Your task to perform on an android device: Open ESPN.com Image 0: 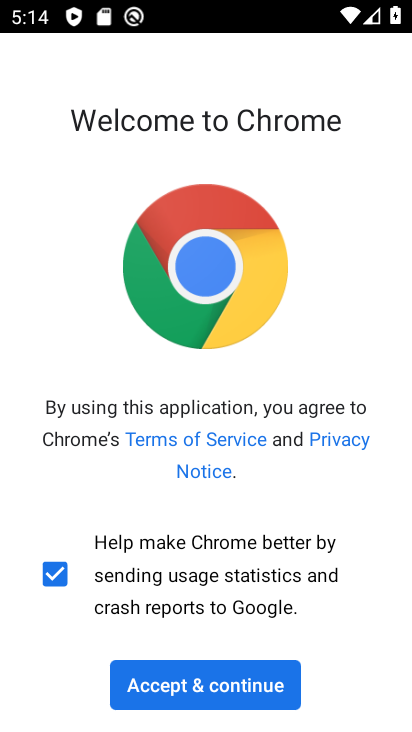
Step 0: click (234, 688)
Your task to perform on an android device: Open ESPN.com Image 1: 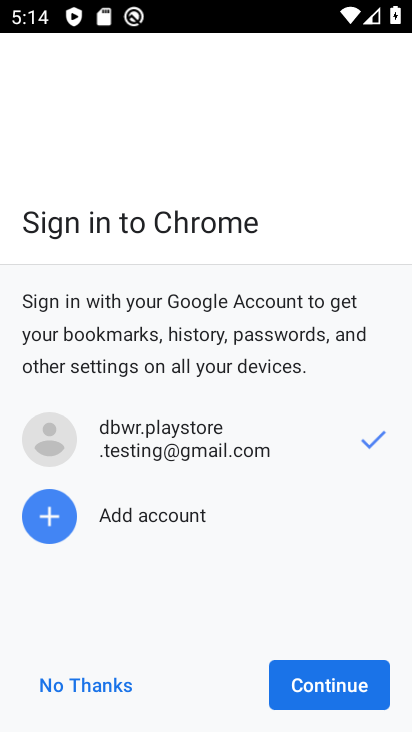
Step 1: click (307, 697)
Your task to perform on an android device: Open ESPN.com Image 2: 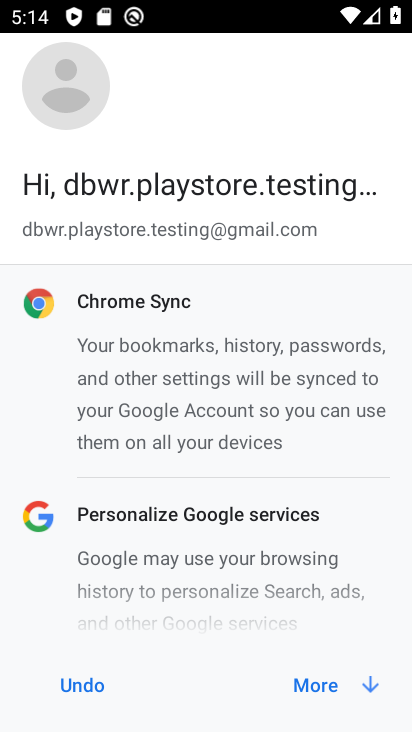
Step 2: click (301, 682)
Your task to perform on an android device: Open ESPN.com Image 3: 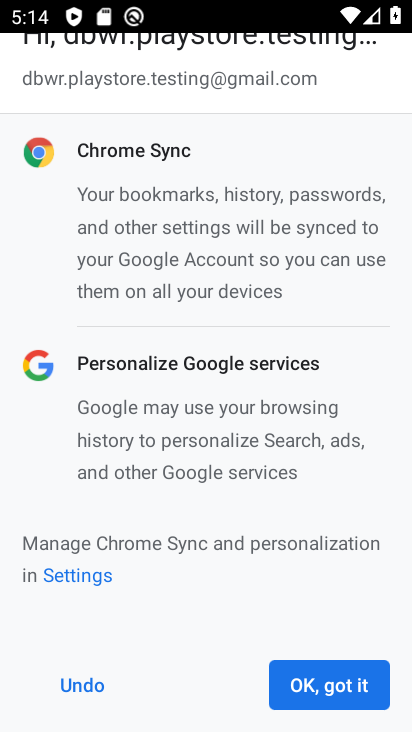
Step 3: click (301, 682)
Your task to perform on an android device: Open ESPN.com Image 4: 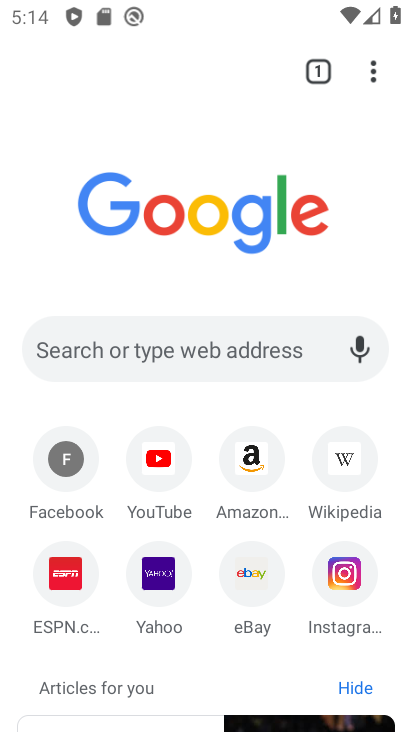
Step 4: click (56, 627)
Your task to perform on an android device: Open ESPN.com Image 5: 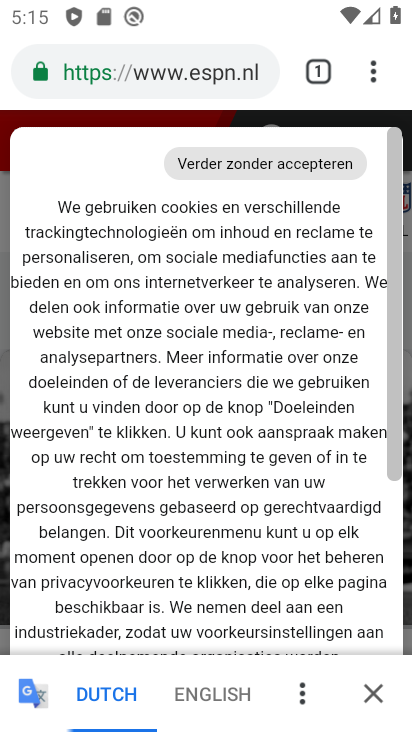
Step 5: task complete